Your task to perform on an android device: Open Google Image 0: 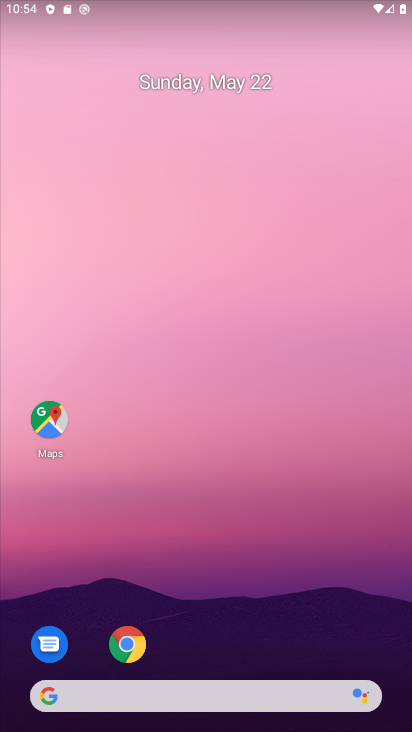
Step 0: drag from (337, 612) to (249, 10)
Your task to perform on an android device: Open Google Image 1: 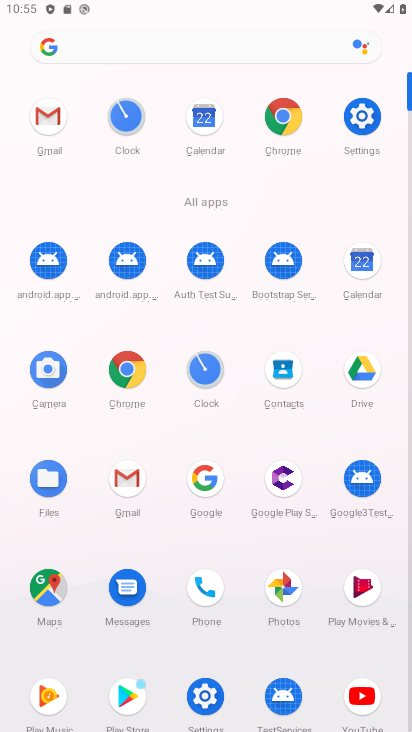
Step 1: click (199, 492)
Your task to perform on an android device: Open Google Image 2: 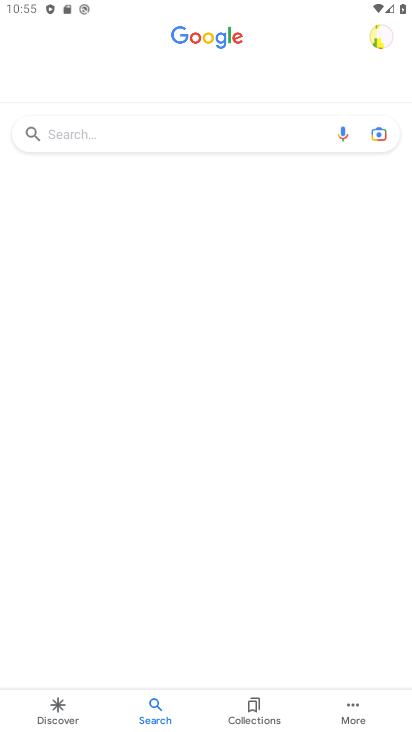
Step 2: task complete